Your task to perform on an android device: allow notifications from all sites in the chrome app Image 0: 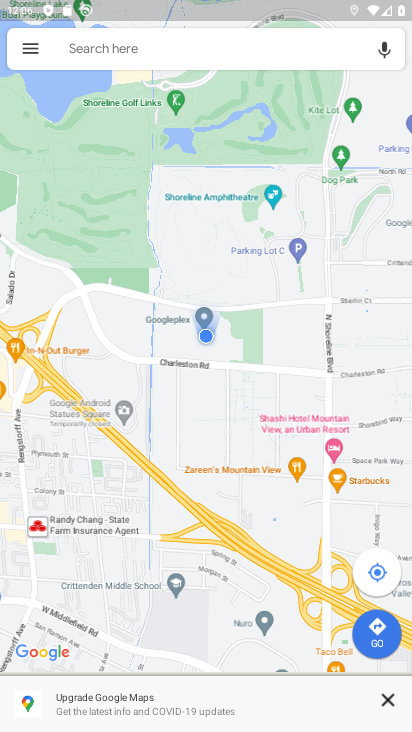
Step 0: press home button
Your task to perform on an android device: allow notifications from all sites in the chrome app Image 1: 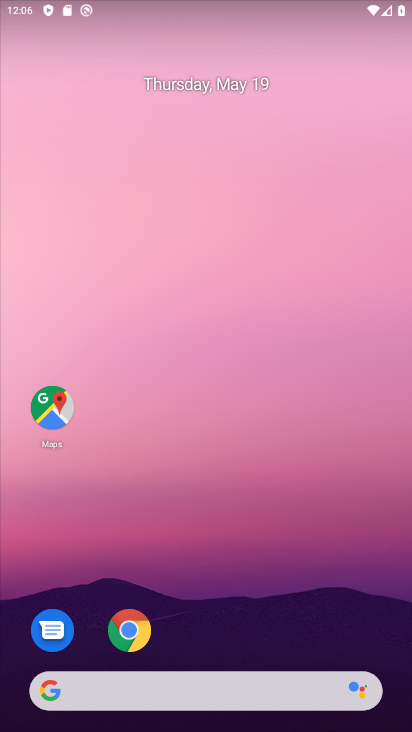
Step 1: click (127, 629)
Your task to perform on an android device: allow notifications from all sites in the chrome app Image 2: 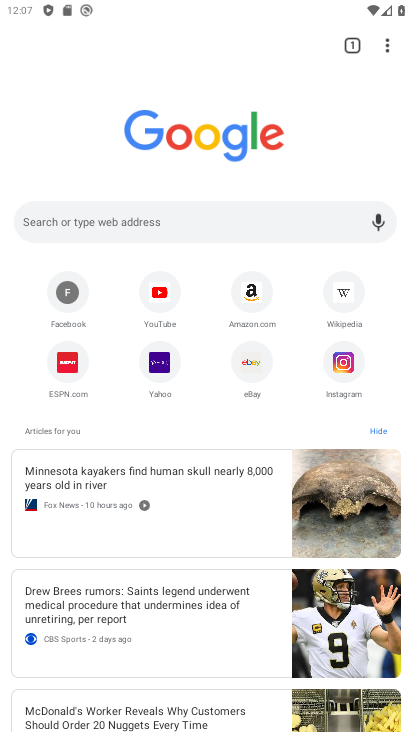
Step 2: click (386, 42)
Your task to perform on an android device: allow notifications from all sites in the chrome app Image 3: 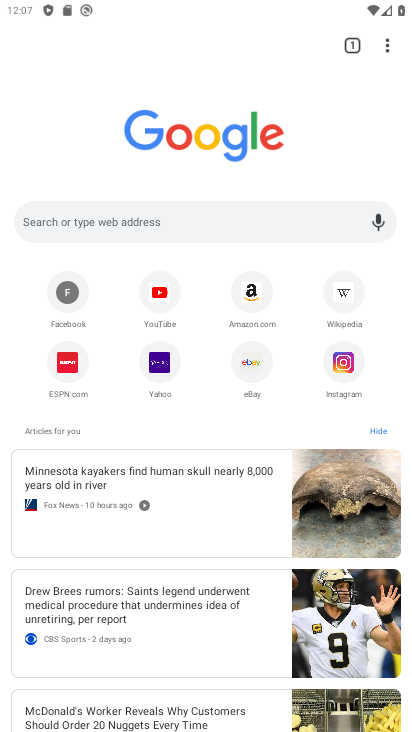
Step 3: click (386, 42)
Your task to perform on an android device: allow notifications from all sites in the chrome app Image 4: 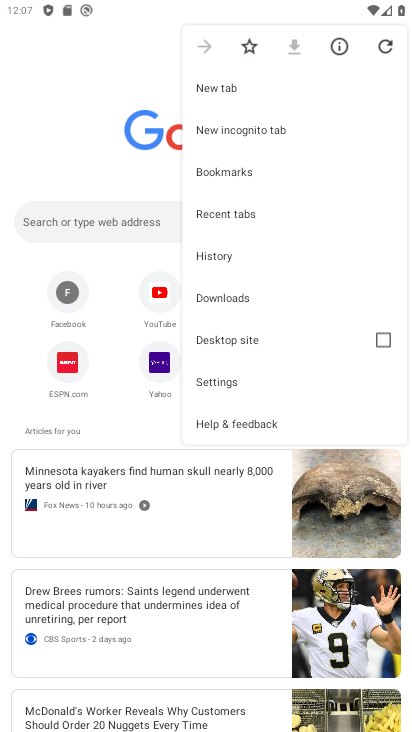
Step 4: click (217, 383)
Your task to perform on an android device: allow notifications from all sites in the chrome app Image 5: 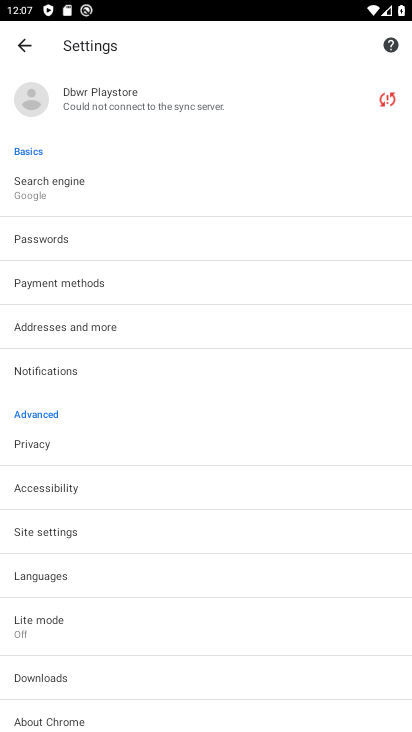
Step 5: drag from (83, 571) to (176, 314)
Your task to perform on an android device: allow notifications from all sites in the chrome app Image 6: 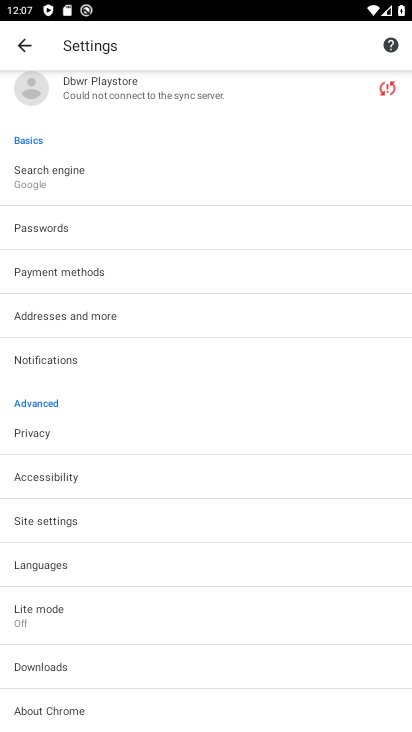
Step 6: click (65, 358)
Your task to perform on an android device: allow notifications from all sites in the chrome app Image 7: 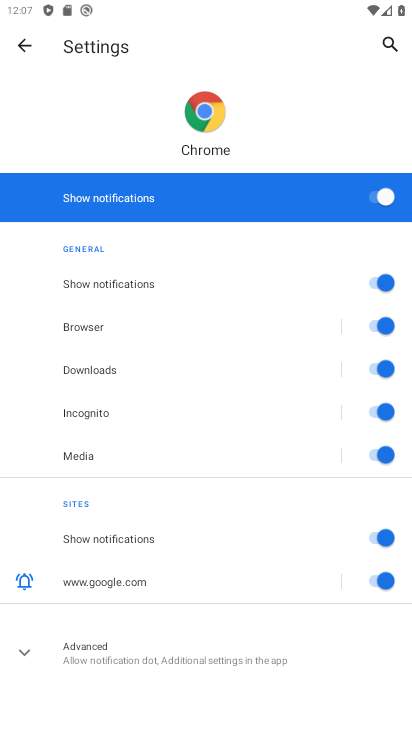
Step 7: task complete